Your task to perform on an android device: Open Amazon Image 0: 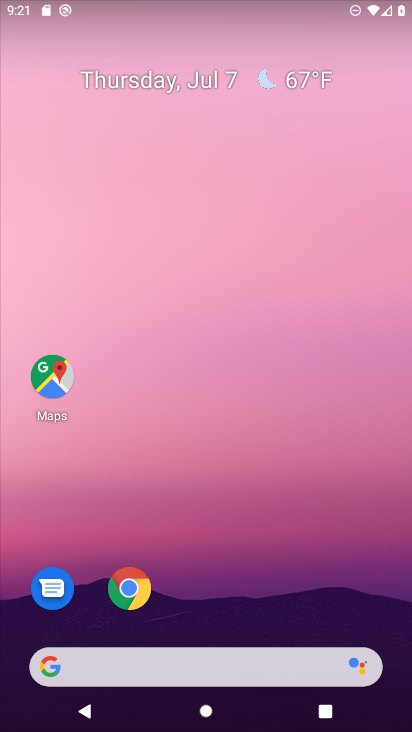
Step 0: click (132, 588)
Your task to perform on an android device: Open Amazon Image 1: 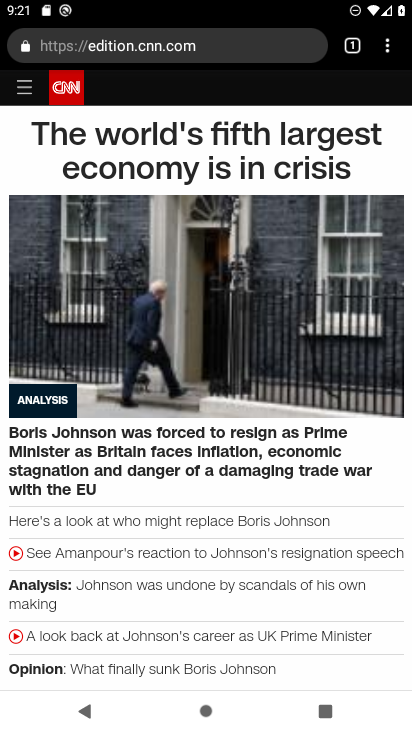
Step 1: click (242, 42)
Your task to perform on an android device: Open Amazon Image 2: 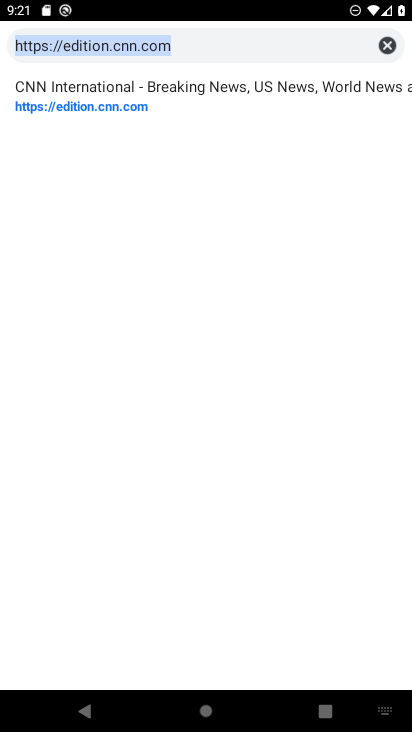
Step 2: type "Amazon"
Your task to perform on an android device: Open Amazon Image 3: 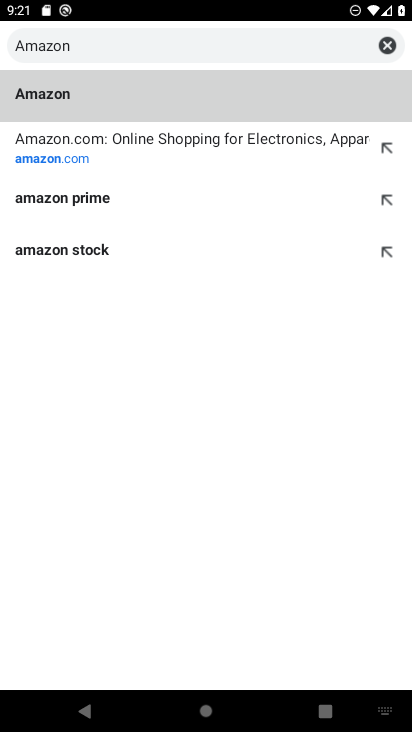
Step 3: click (177, 136)
Your task to perform on an android device: Open Amazon Image 4: 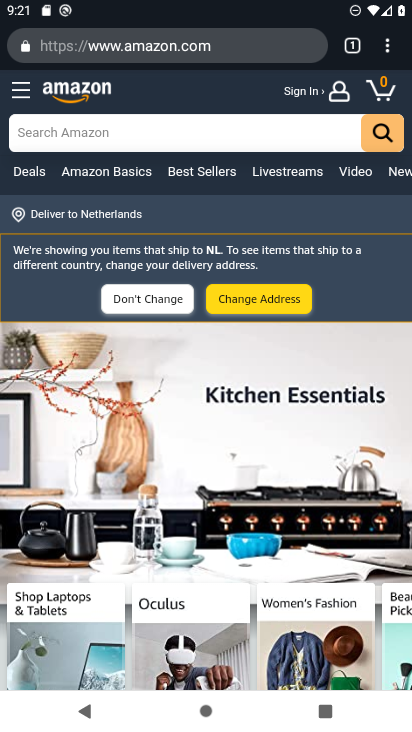
Step 4: task complete